Your task to perform on an android device: change timer sound Image 0: 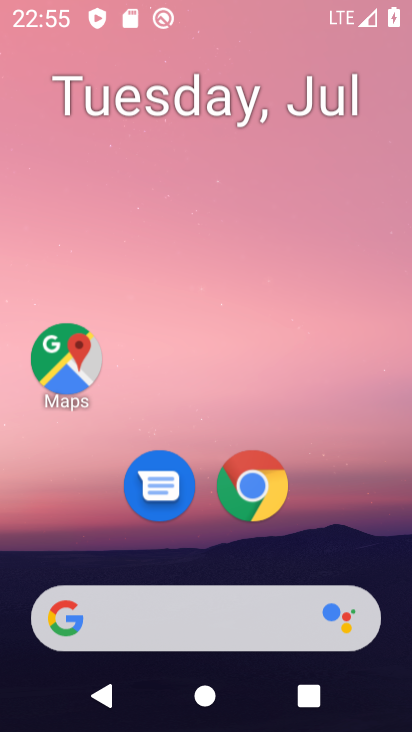
Step 0: press home button
Your task to perform on an android device: change timer sound Image 1: 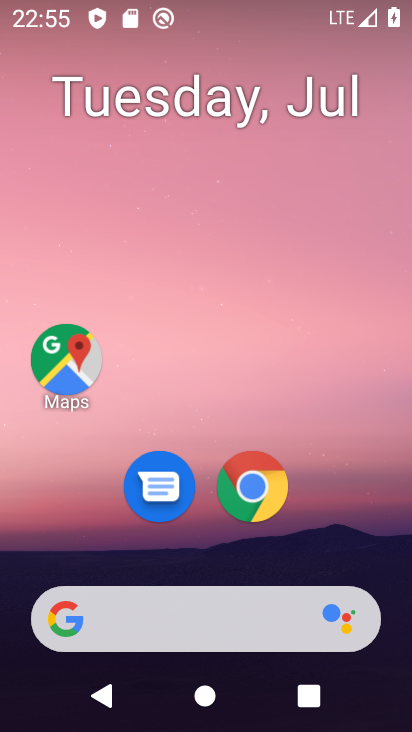
Step 1: drag from (355, 536) to (355, 245)
Your task to perform on an android device: change timer sound Image 2: 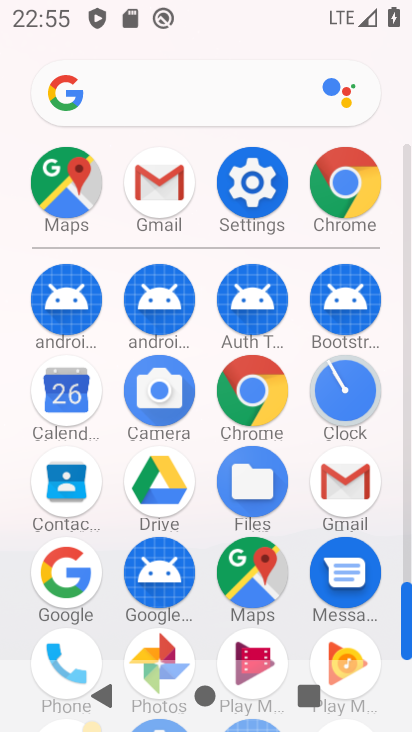
Step 2: click (338, 392)
Your task to perform on an android device: change timer sound Image 3: 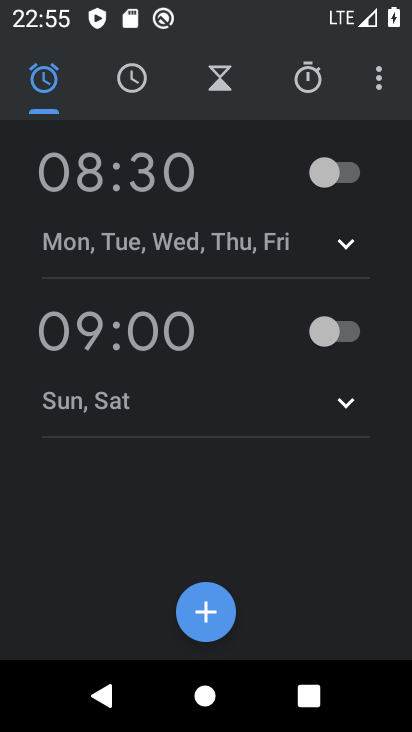
Step 3: click (375, 85)
Your task to perform on an android device: change timer sound Image 4: 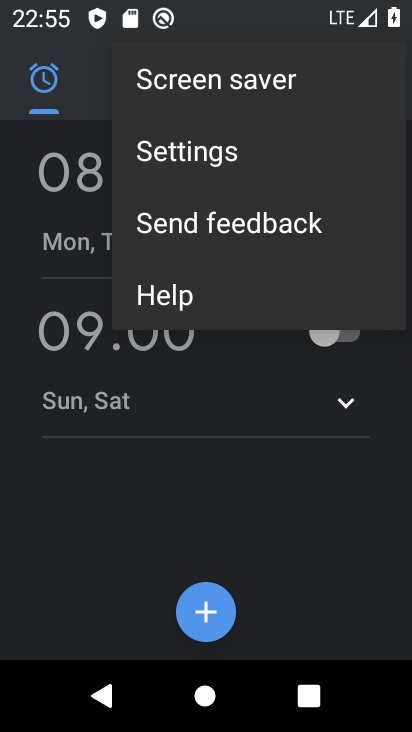
Step 4: click (222, 162)
Your task to perform on an android device: change timer sound Image 5: 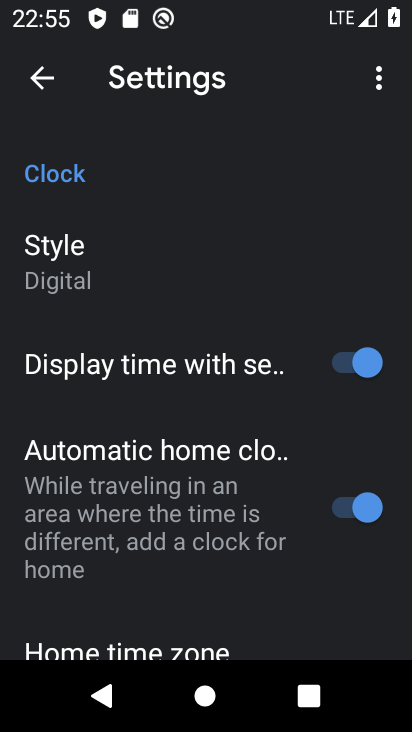
Step 5: drag from (288, 575) to (290, 484)
Your task to perform on an android device: change timer sound Image 6: 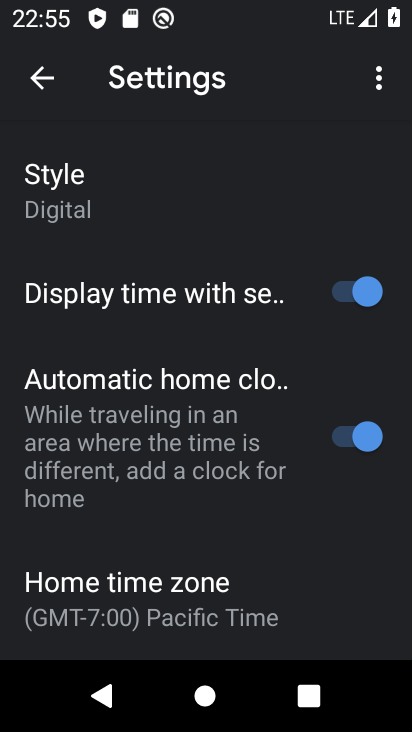
Step 6: drag from (295, 557) to (296, 481)
Your task to perform on an android device: change timer sound Image 7: 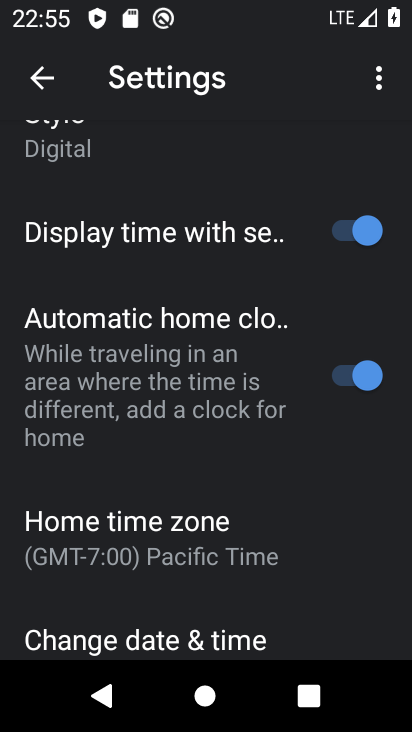
Step 7: drag from (306, 567) to (307, 482)
Your task to perform on an android device: change timer sound Image 8: 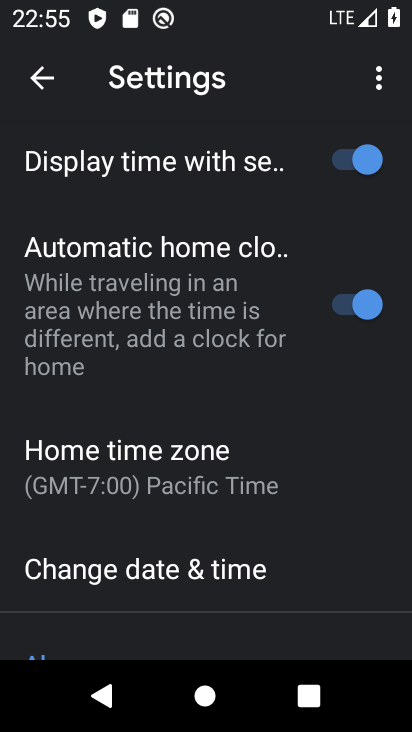
Step 8: drag from (306, 544) to (306, 467)
Your task to perform on an android device: change timer sound Image 9: 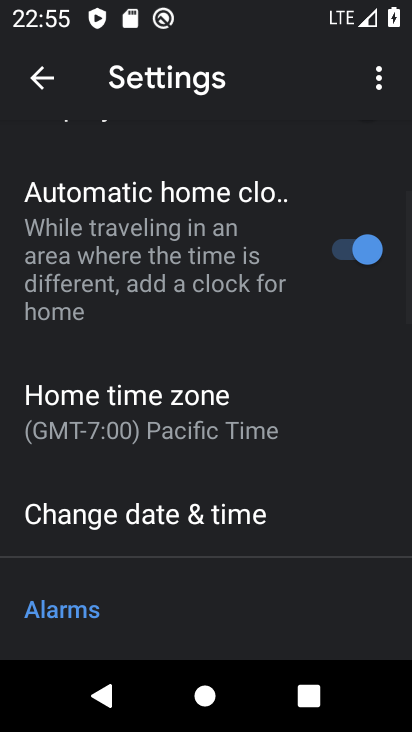
Step 9: drag from (312, 558) to (313, 470)
Your task to perform on an android device: change timer sound Image 10: 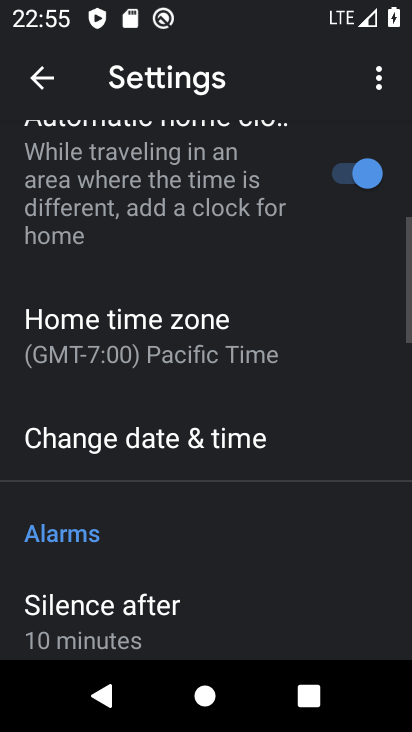
Step 10: drag from (299, 552) to (302, 479)
Your task to perform on an android device: change timer sound Image 11: 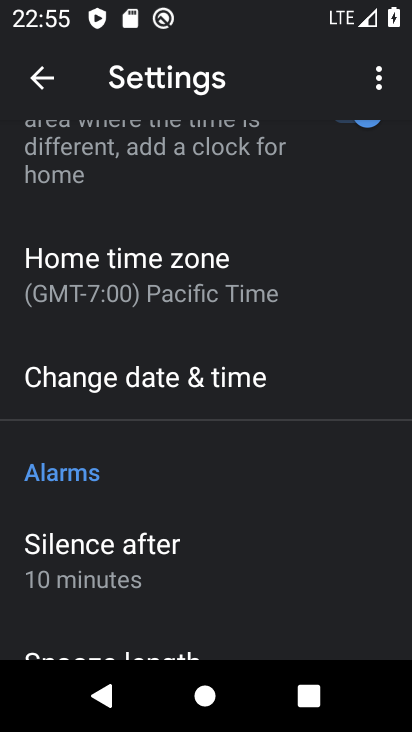
Step 11: drag from (300, 555) to (304, 464)
Your task to perform on an android device: change timer sound Image 12: 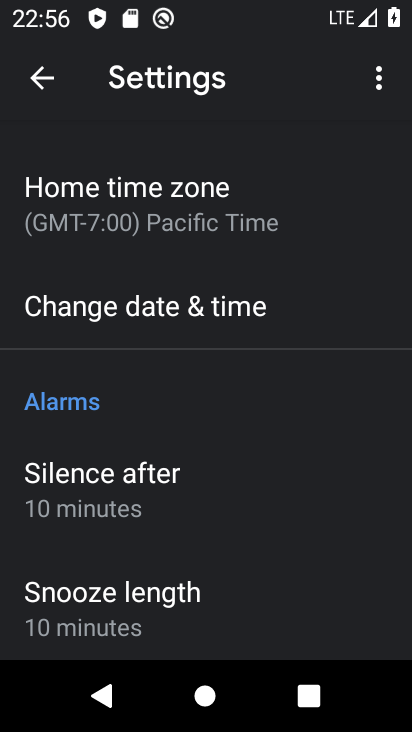
Step 12: drag from (310, 539) to (304, 446)
Your task to perform on an android device: change timer sound Image 13: 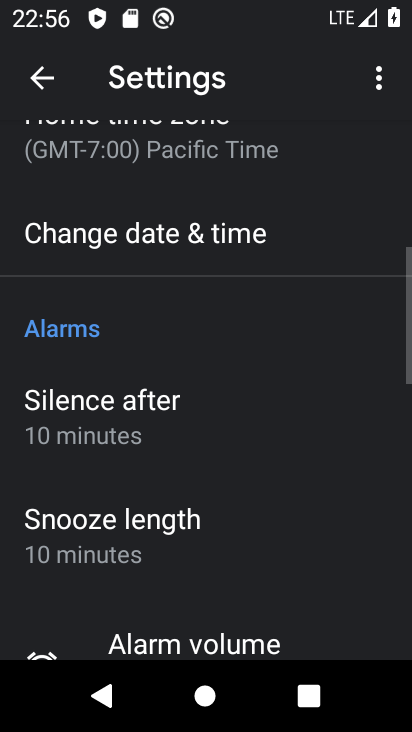
Step 13: drag from (296, 534) to (298, 443)
Your task to perform on an android device: change timer sound Image 14: 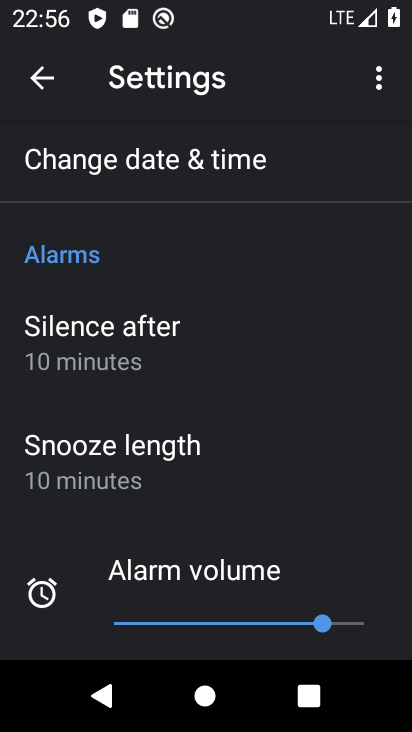
Step 14: drag from (295, 530) to (295, 444)
Your task to perform on an android device: change timer sound Image 15: 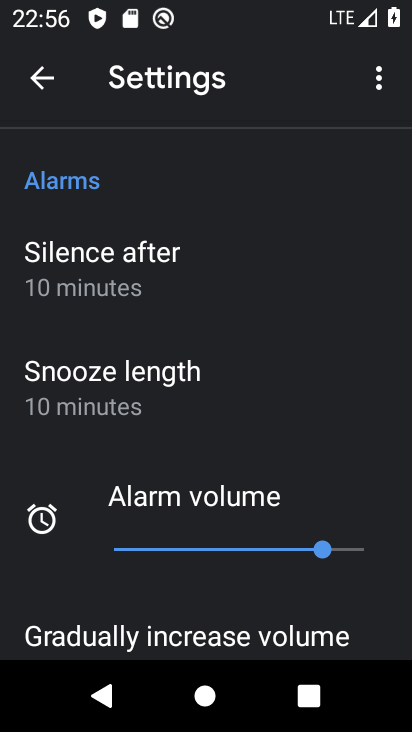
Step 15: drag from (295, 550) to (297, 450)
Your task to perform on an android device: change timer sound Image 16: 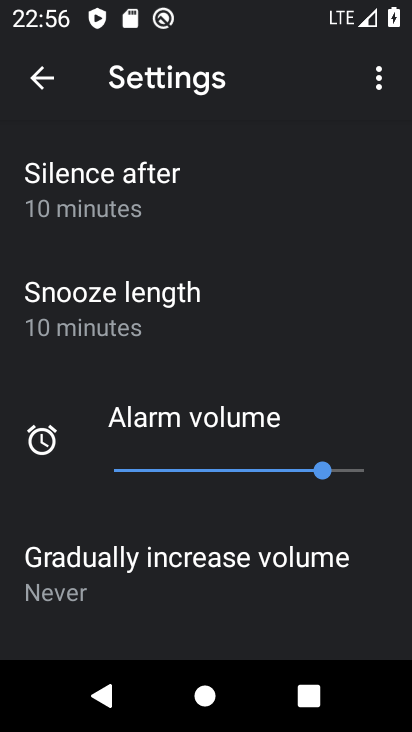
Step 16: drag from (345, 592) to (354, 495)
Your task to perform on an android device: change timer sound Image 17: 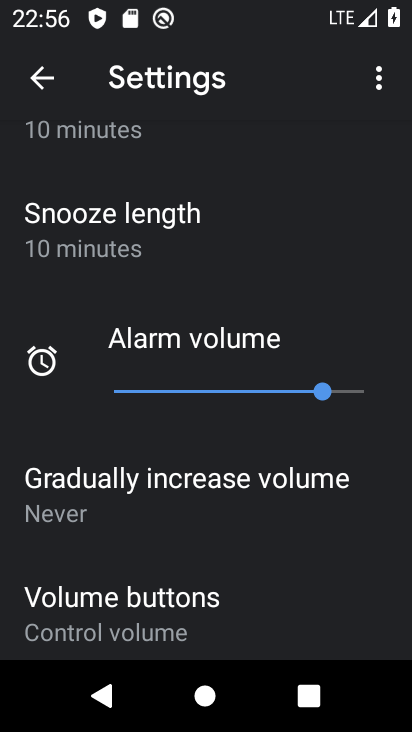
Step 17: drag from (352, 596) to (356, 519)
Your task to perform on an android device: change timer sound Image 18: 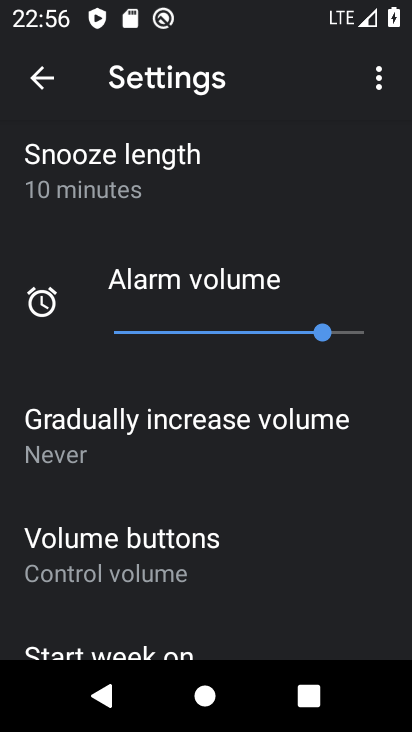
Step 18: drag from (355, 579) to (358, 500)
Your task to perform on an android device: change timer sound Image 19: 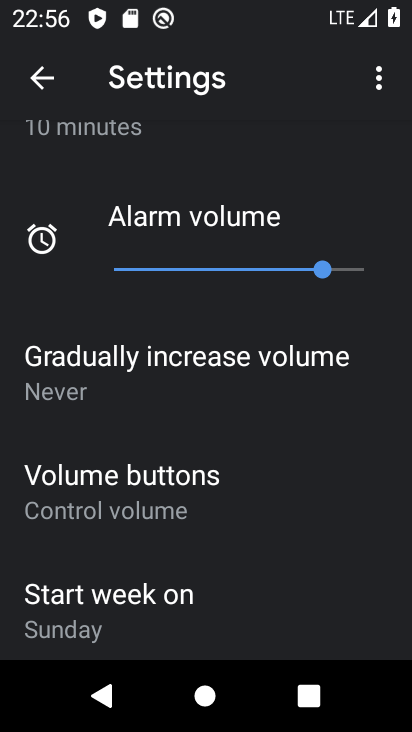
Step 19: drag from (341, 578) to (341, 497)
Your task to perform on an android device: change timer sound Image 20: 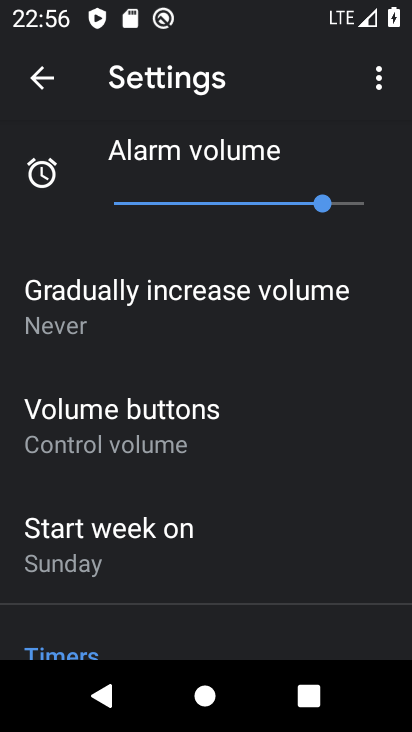
Step 20: drag from (322, 576) to (324, 490)
Your task to perform on an android device: change timer sound Image 21: 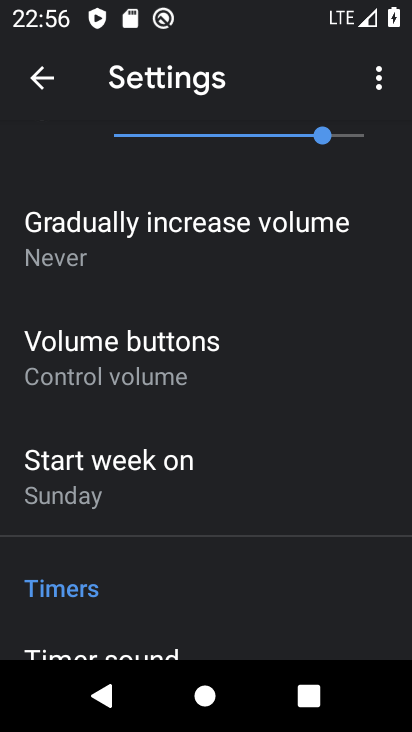
Step 21: drag from (317, 564) to (318, 451)
Your task to perform on an android device: change timer sound Image 22: 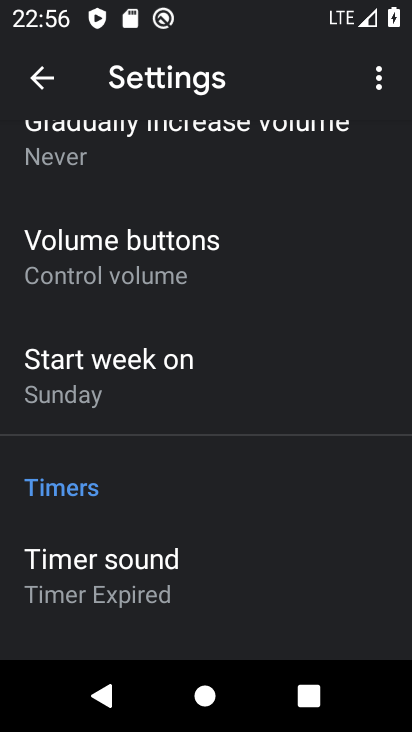
Step 22: drag from (303, 552) to (305, 432)
Your task to perform on an android device: change timer sound Image 23: 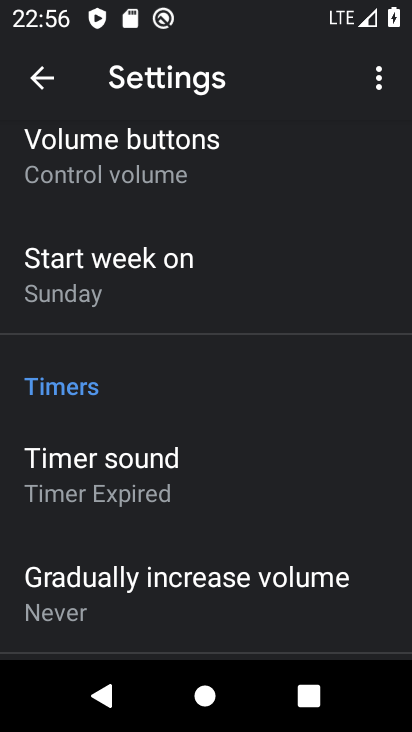
Step 23: drag from (289, 541) to (290, 450)
Your task to perform on an android device: change timer sound Image 24: 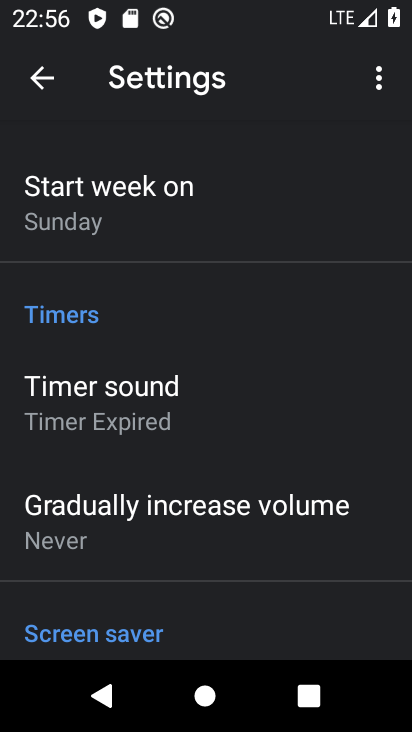
Step 24: click (259, 415)
Your task to perform on an android device: change timer sound Image 25: 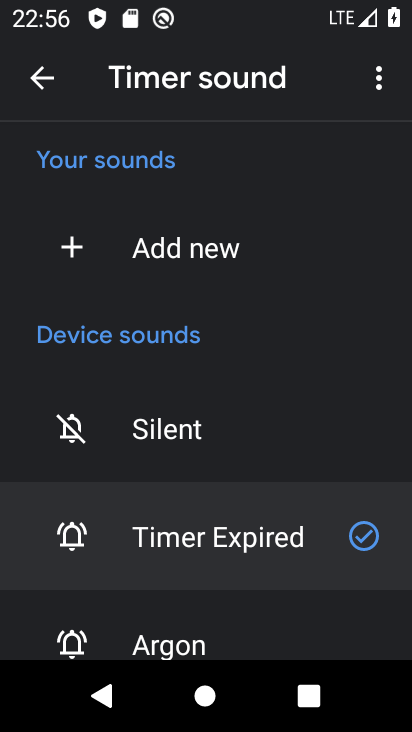
Step 25: click (228, 443)
Your task to perform on an android device: change timer sound Image 26: 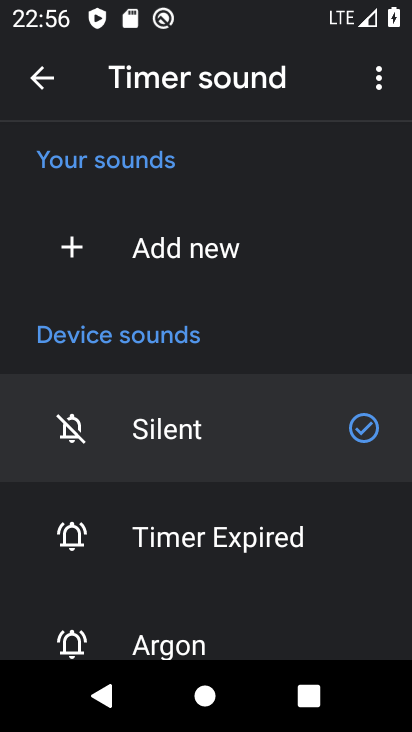
Step 26: task complete